Your task to perform on an android device: check battery use Image 0: 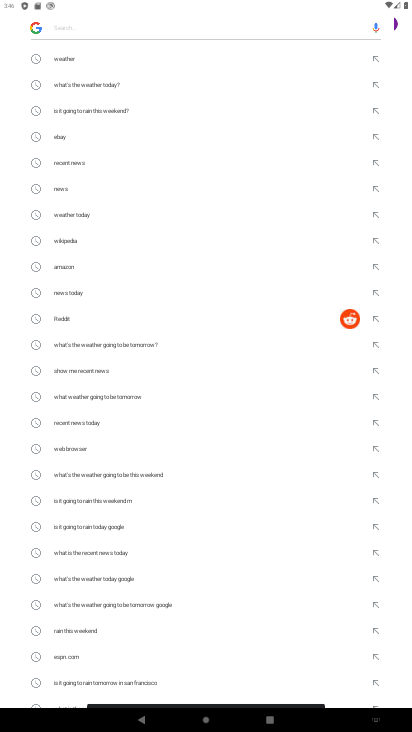
Step 0: press home button
Your task to perform on an android device: check battery use Image 1: 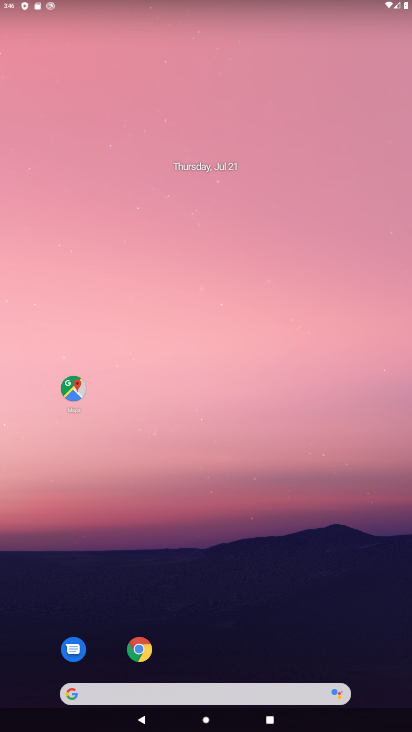
Step 1: drag from (201, 653) to (119, 137)
Your task to perform on an android device: check battery use Image 2: 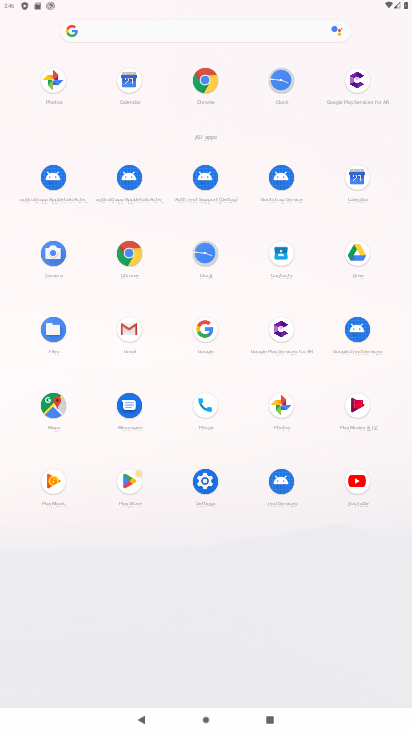
Step 2: click (210, 467)
Your task to perform on an android device: check battery use Image 3: 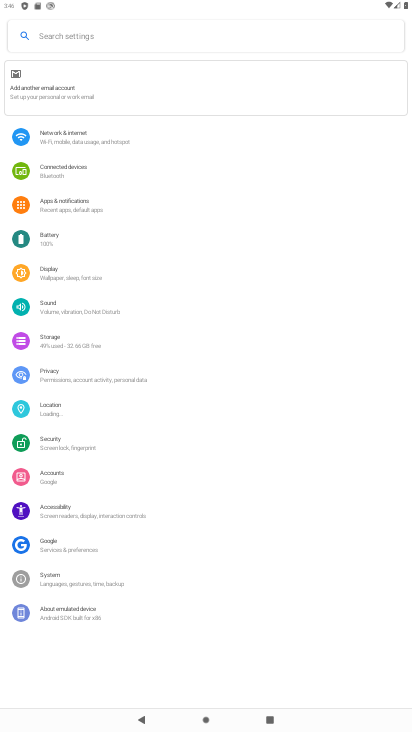
Step 3: click (55, 243)
Your task to perform on an android device: check battery use Image 4: 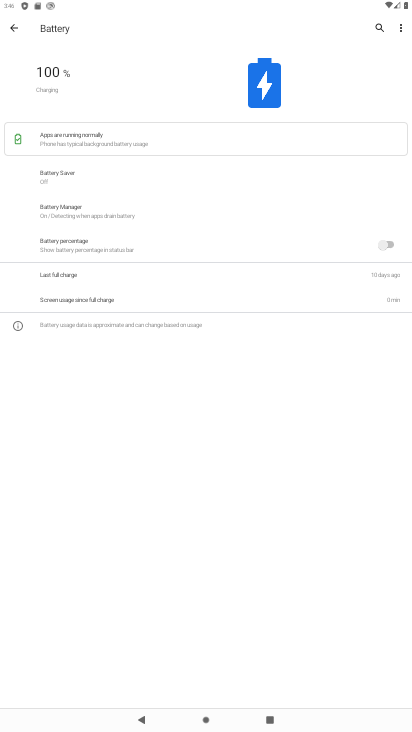
Step 4: task complete